Your task to perform on an android device: show emergency info Image 0: 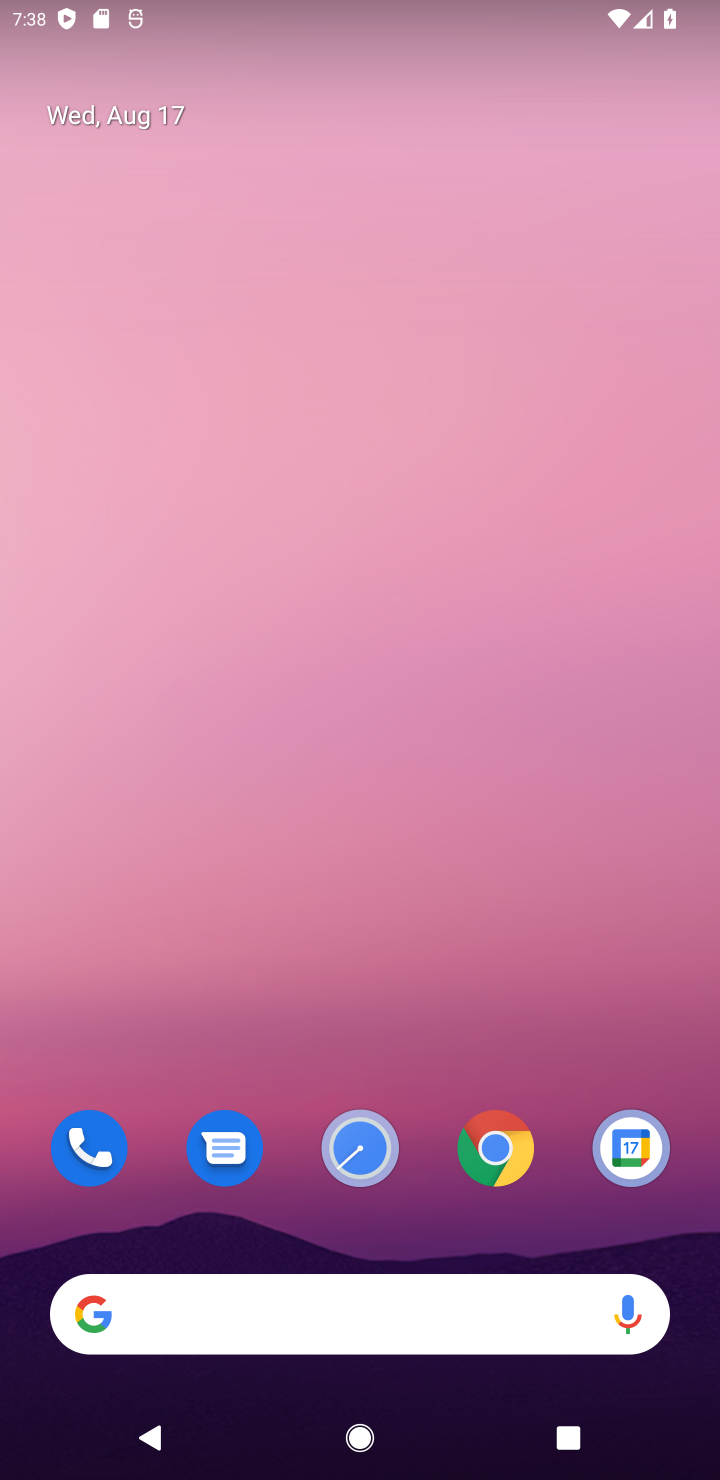
Step 0: drag from (343, 1225) to (343, 438)
Your task to perform on an android device: show emergency info Image 1: 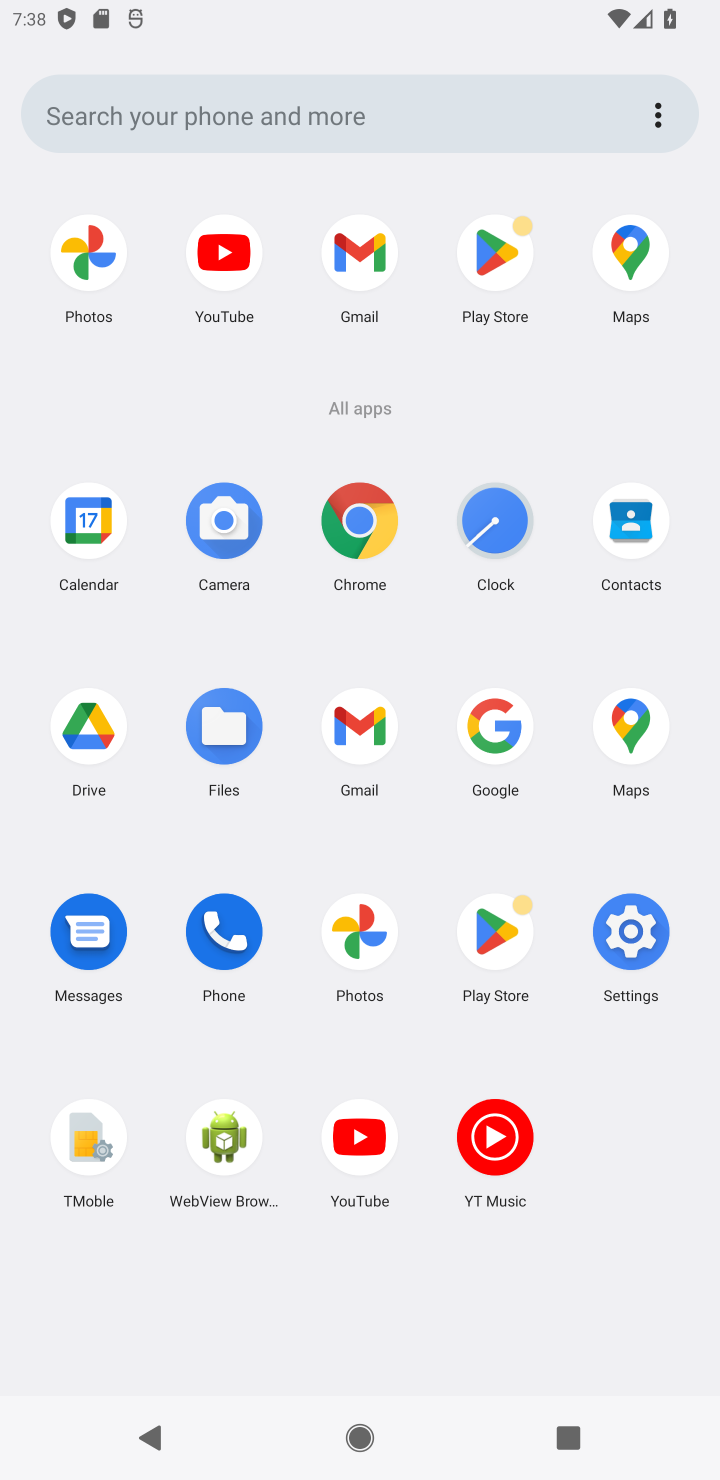
Step 1: click (634, 918)
Your task to perform on an android device: show emergency info Image 2: 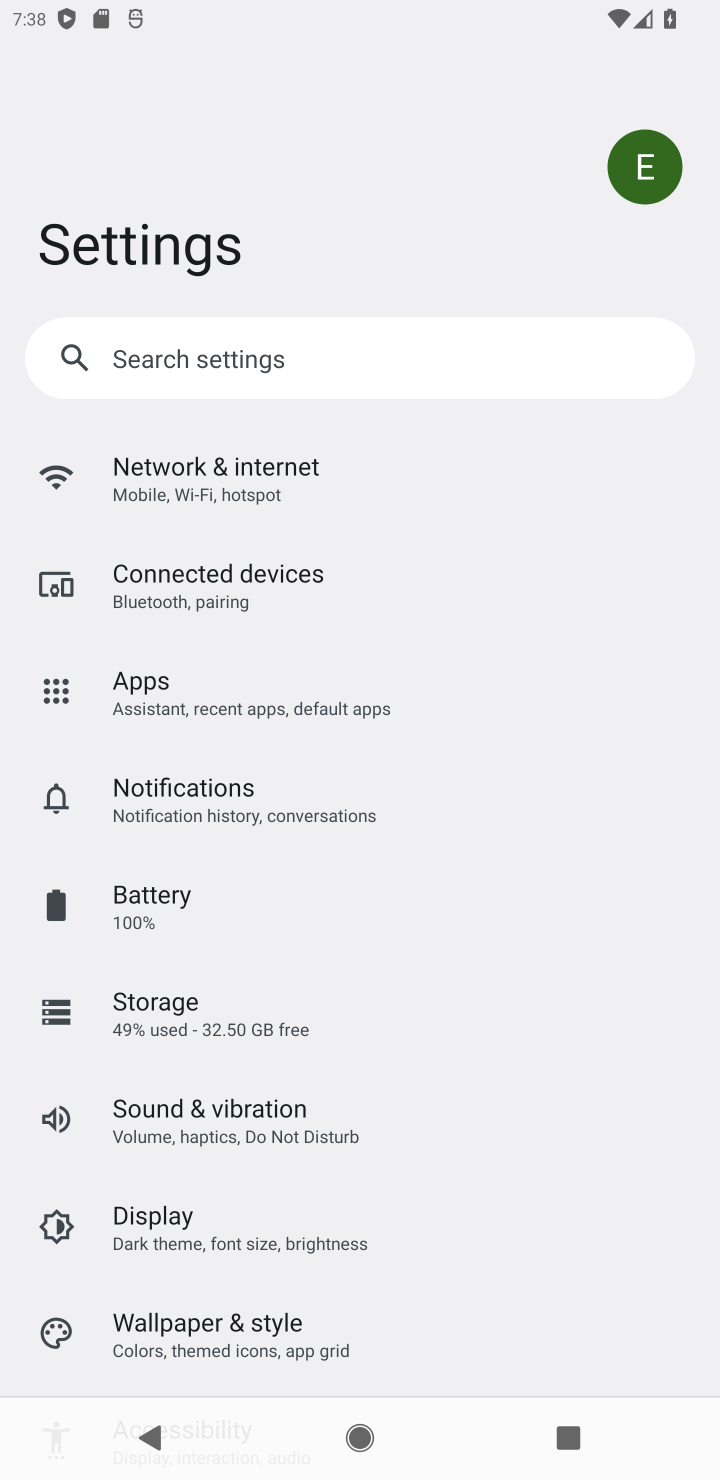
Step 2: drag from (310, 1257) to (261, 434)
Your task to perform on an android device: show emergency info Image 3: 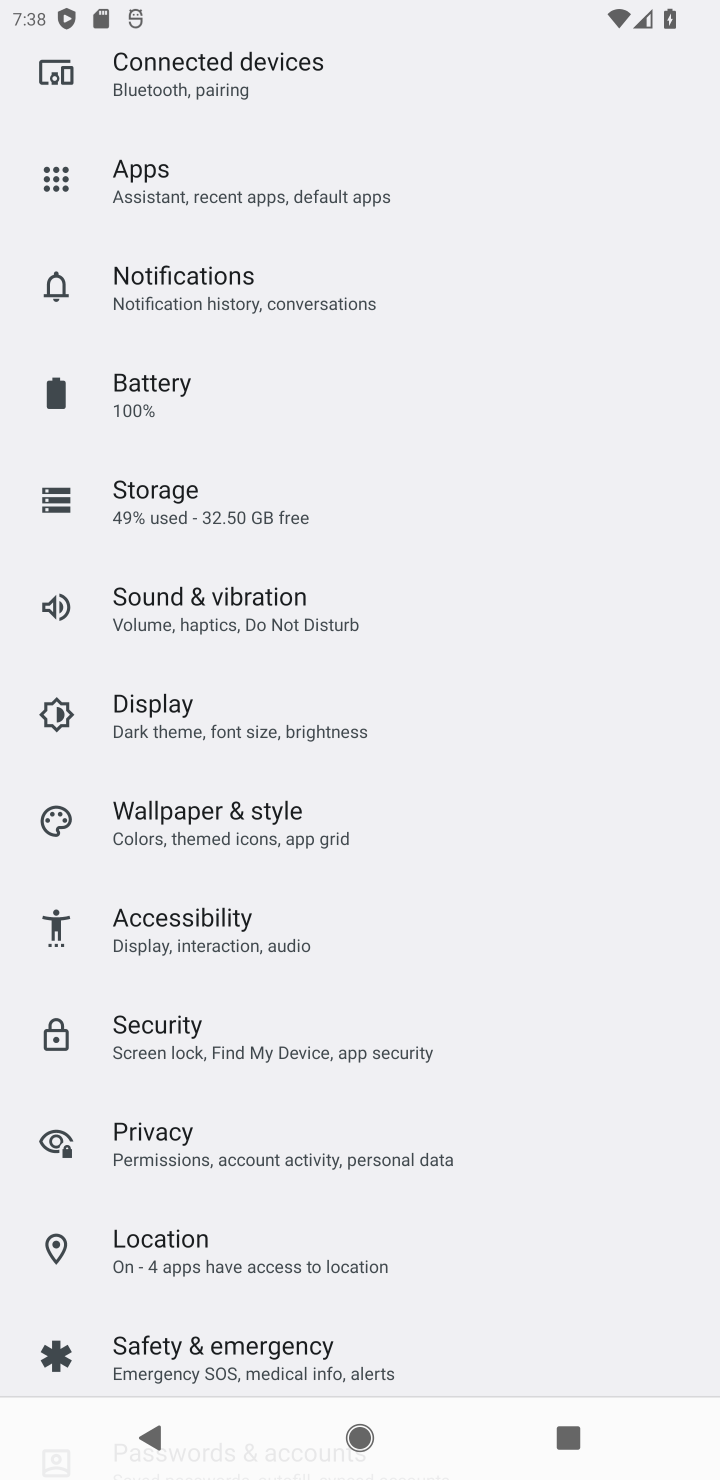
Step 3: drag from (145, 1287) to (164, 517)
Your task to perform on an android device: show emergency info Image 4: 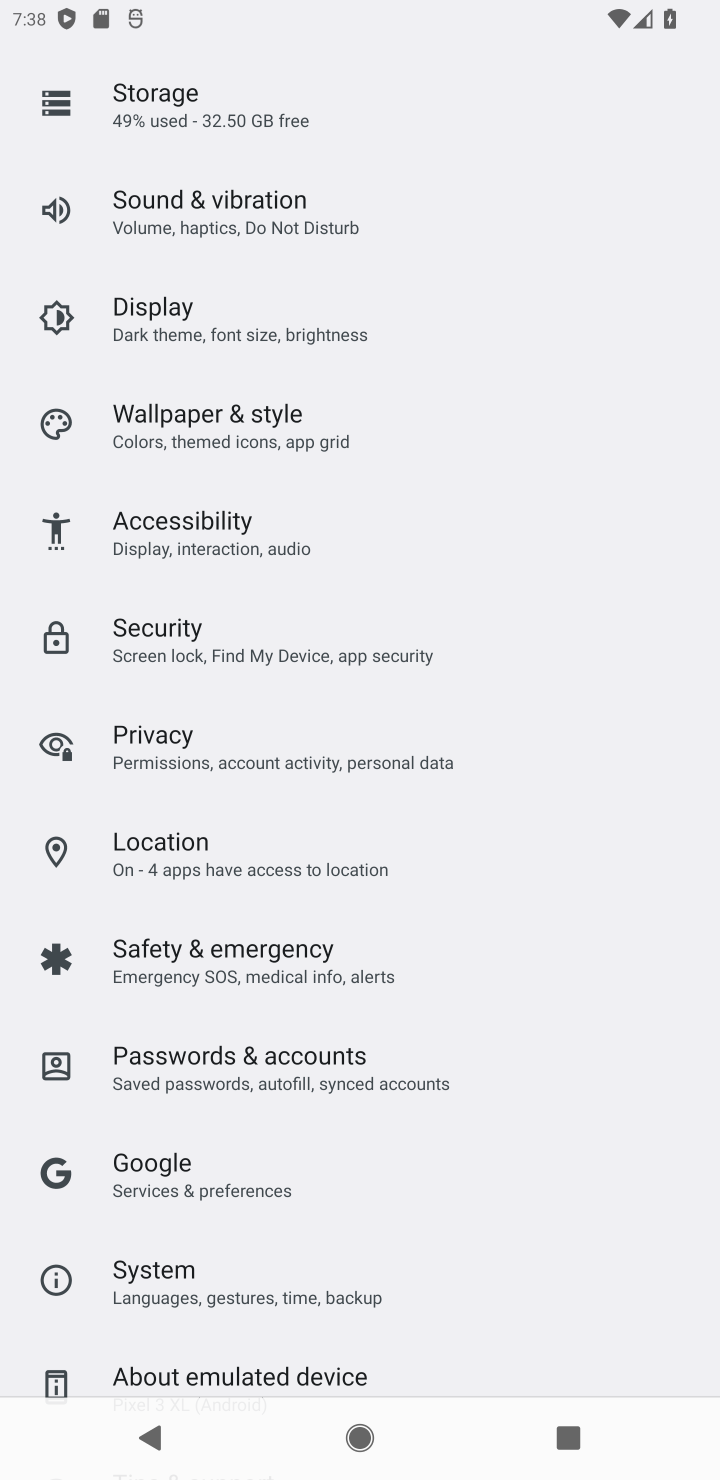
Step 4: click (204, 960)
Your task to perform on an android device: show emergency info Image 5: 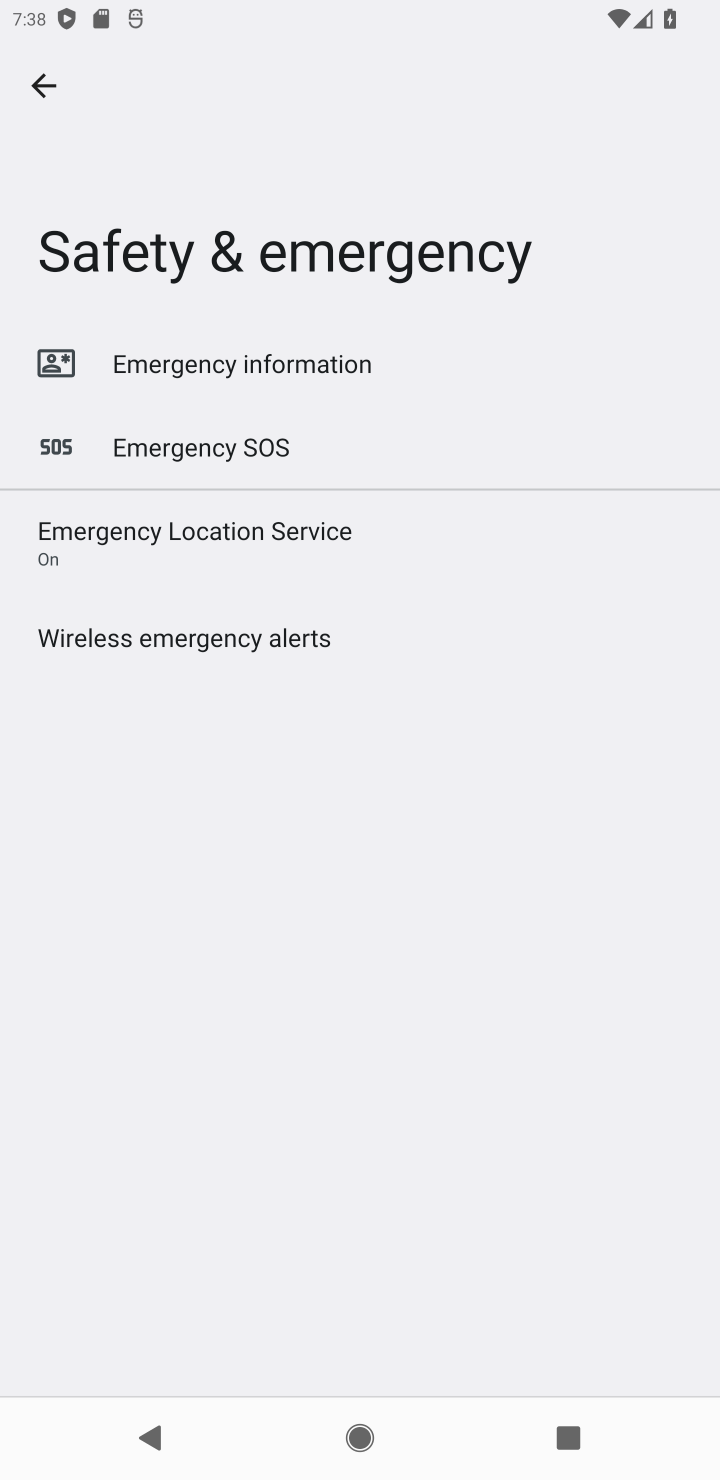
Step 5: click (236, 375)
Your task to perform on an android device: show emergency info Image 6: 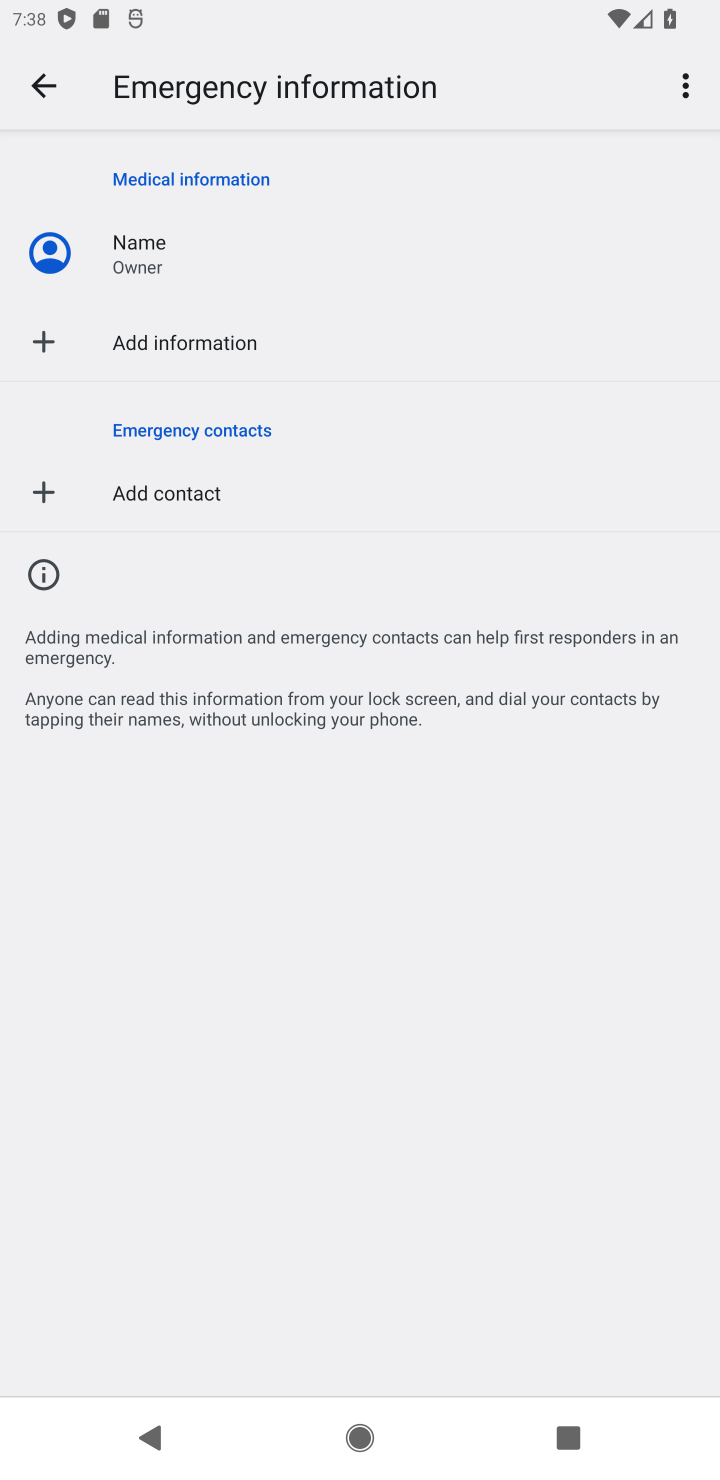
Step 6: task complete